Your task to perform on an android device: turn on sleep mode Image 0: 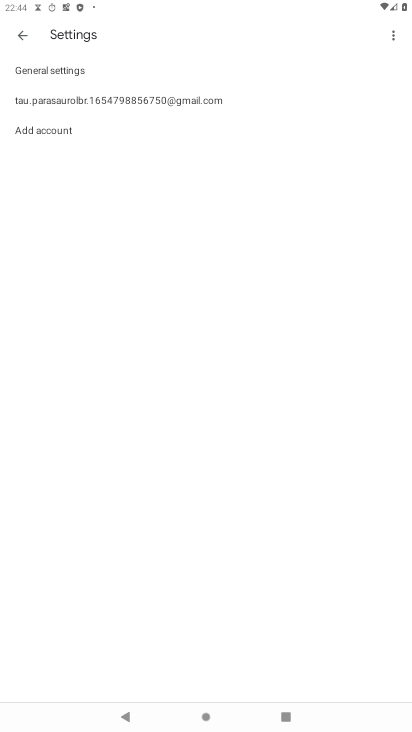
Step 0: press home button
Your task to perform on an android device: turn on sleep mode Image 1: 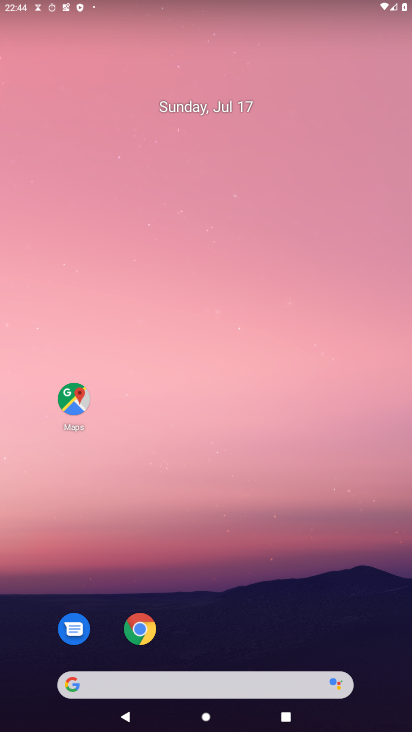
Step 1: drag from (225, 723) to (243, 76)
Your task to perform on an android device: turn on sleep mode Image 2: 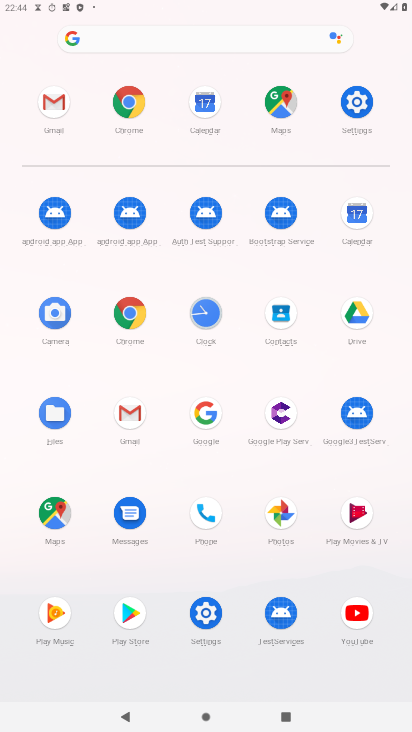
Step 2: click (358, 106)
Your task to perform on an android device: turn on sleep mode Image 3: 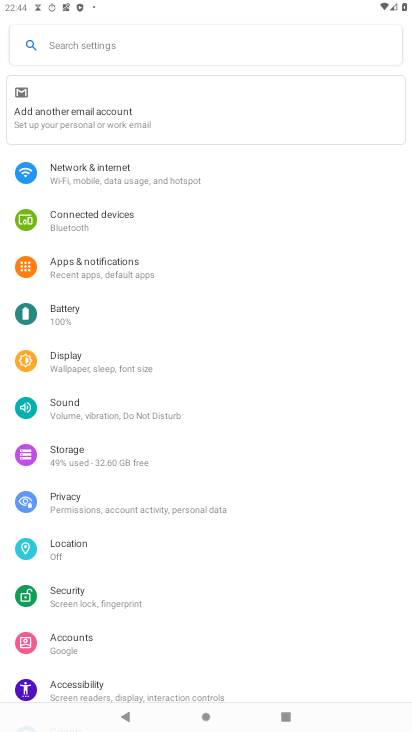
Step 3: click (109, 366)
Your task to perform on an android device: turn on sleep mode Image 4: 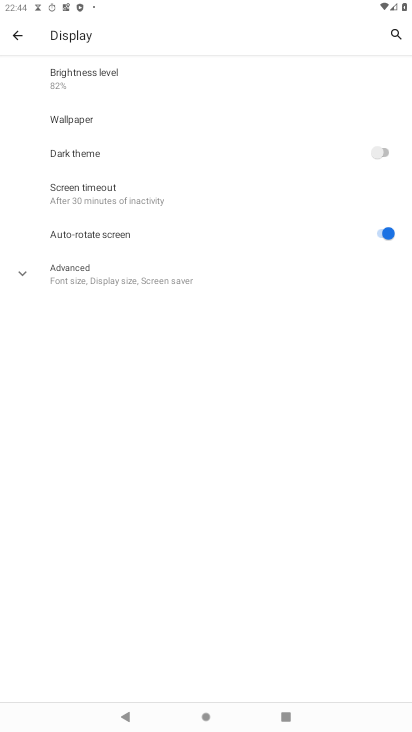
Step 4: task complete